Your task to perform on an android device: set the stopwatch Image 0: 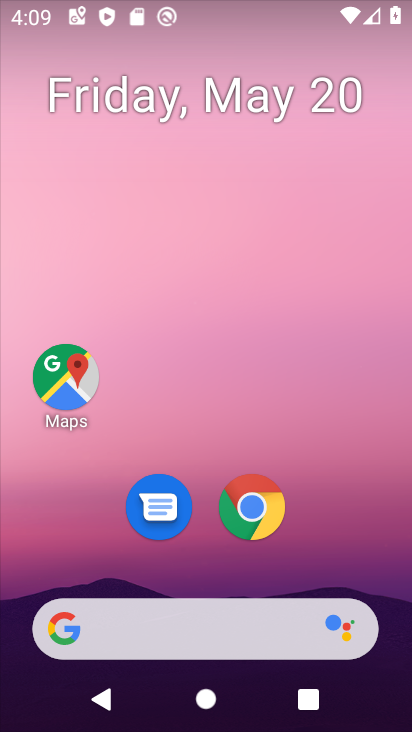
Step 0: drag from (335, 520) to (215, 93)
Your task to perform on an android device: set the stopwatch Image 1: 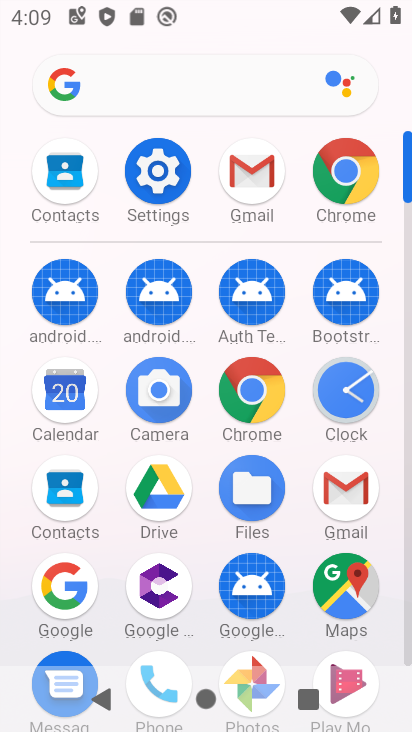
Step 1: click (348, 392)
Your task to perform on an android device: set the stopwatch Image 2: 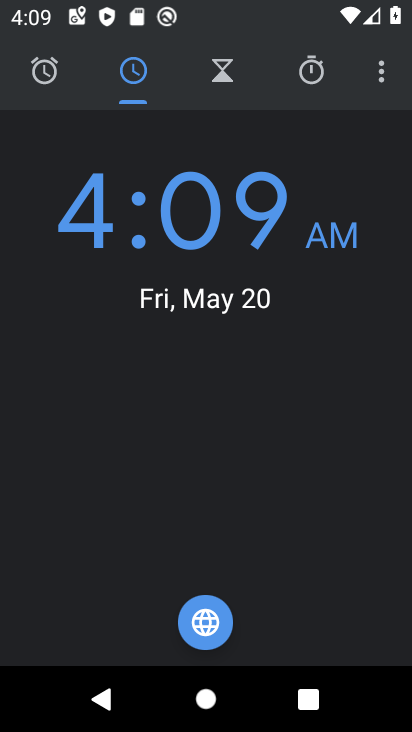
Step 2: click (314, 71)
Your task to perform on an android device: set the stopwatch Image 3: 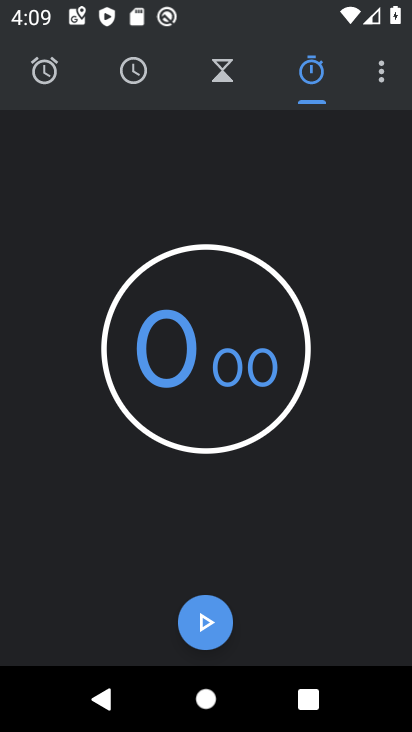
Step 3: click (204, 623)
Your task to perform on an android device: set the stopwatch Image 4: 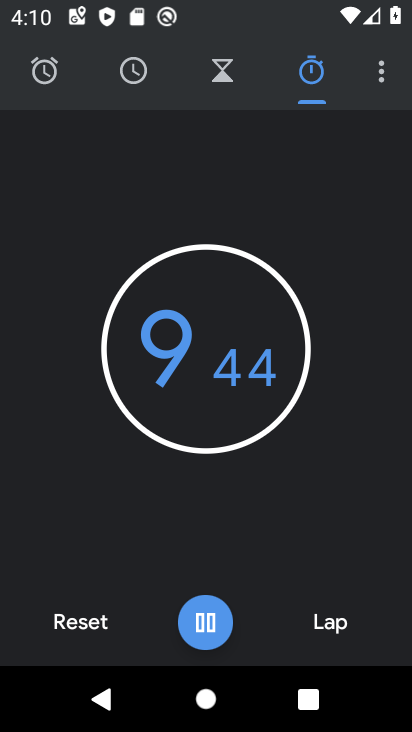
Step 4: click (204, 623)
Your task to perform on an android device: set the stopwatch Image 5: 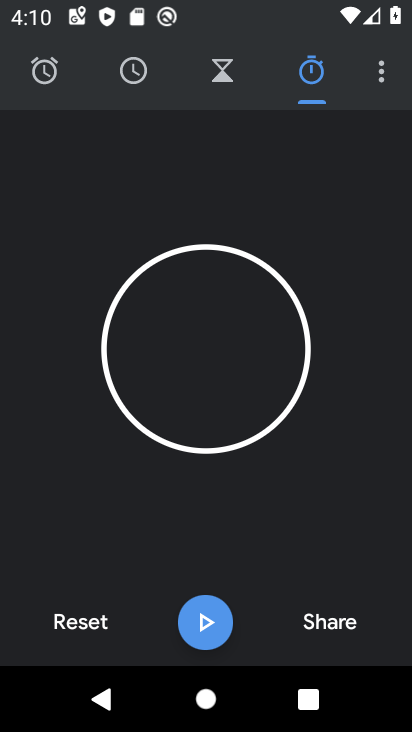
Step 5: task complete